Your task to perform on an android device: all mails in gmail Image 0: 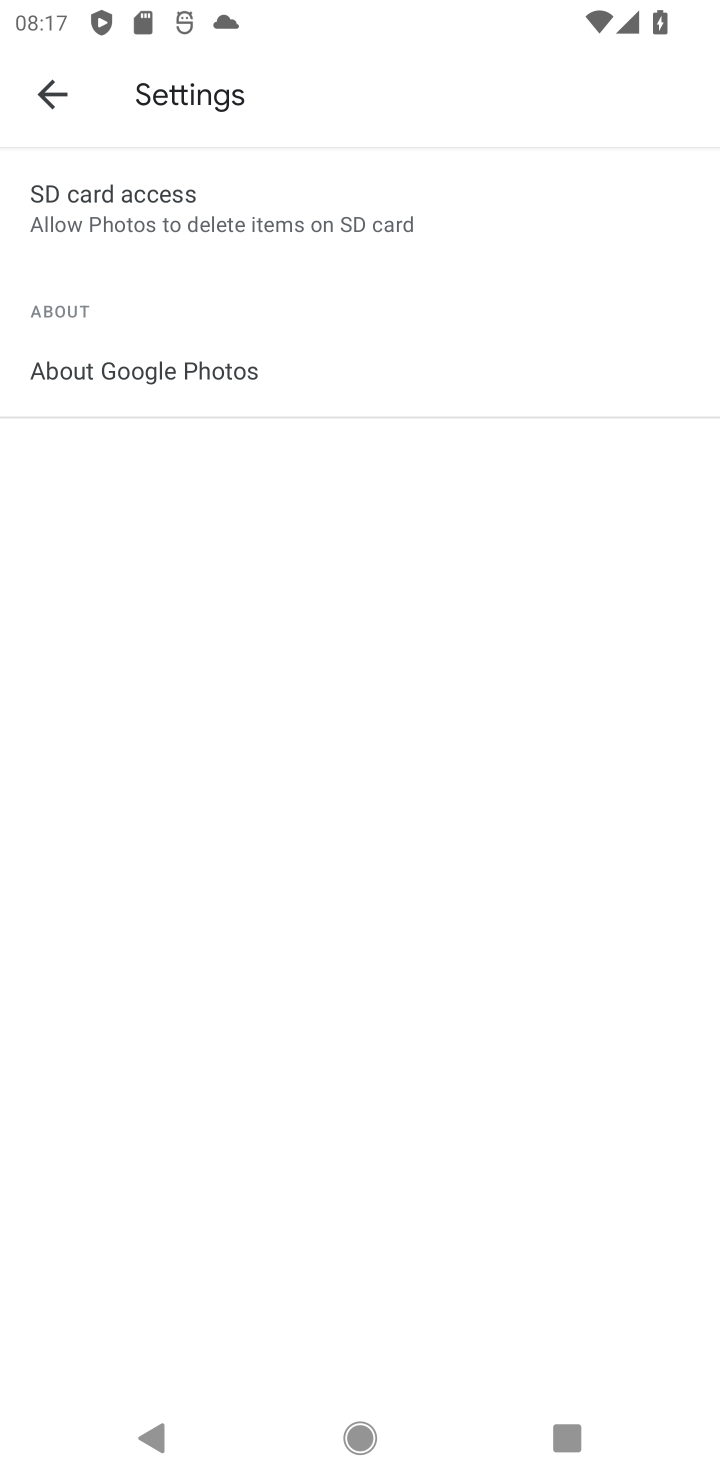
Step 0: press home button
Your task to perform on an android device: all mails in gmail Image 1: 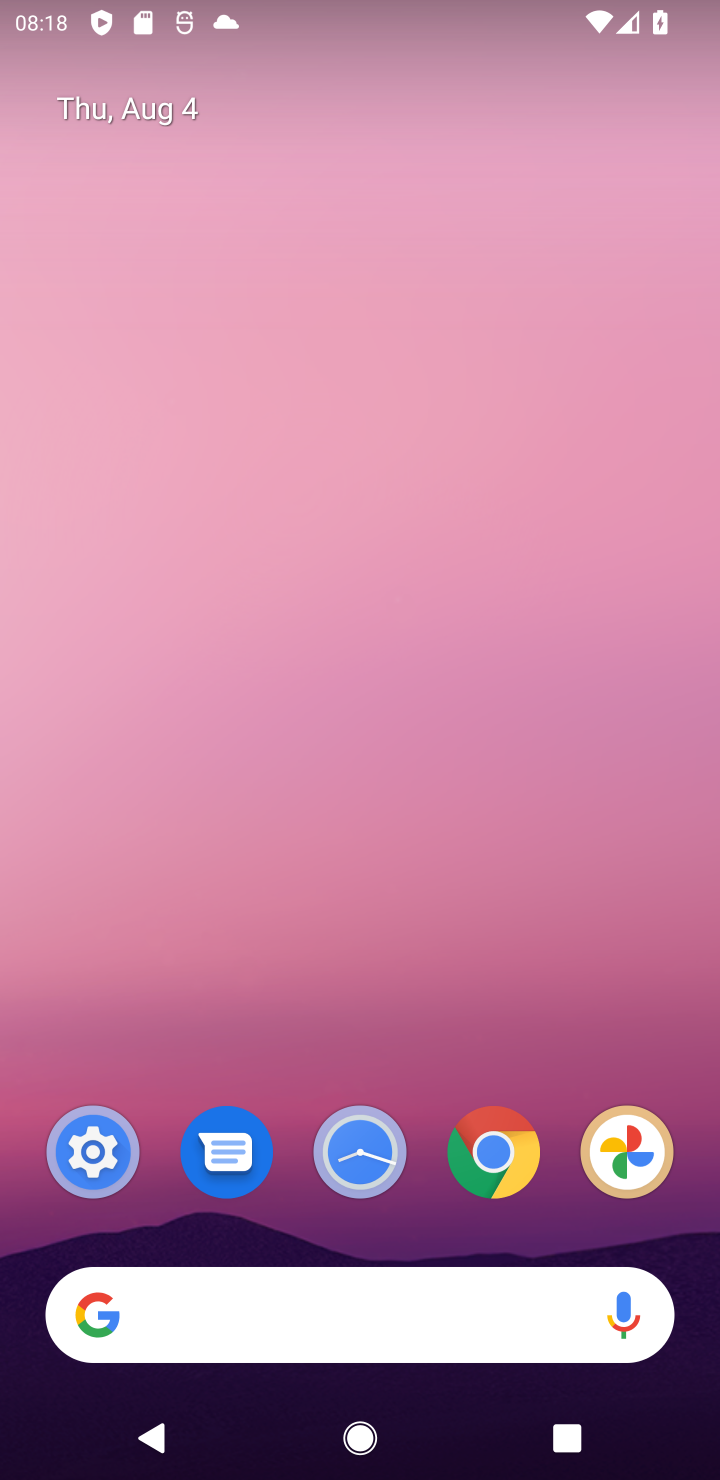
Step 1: drag from (134, 1088) to (569, 260)
Your task to perform on an android device: all mails in gmail Image 2: 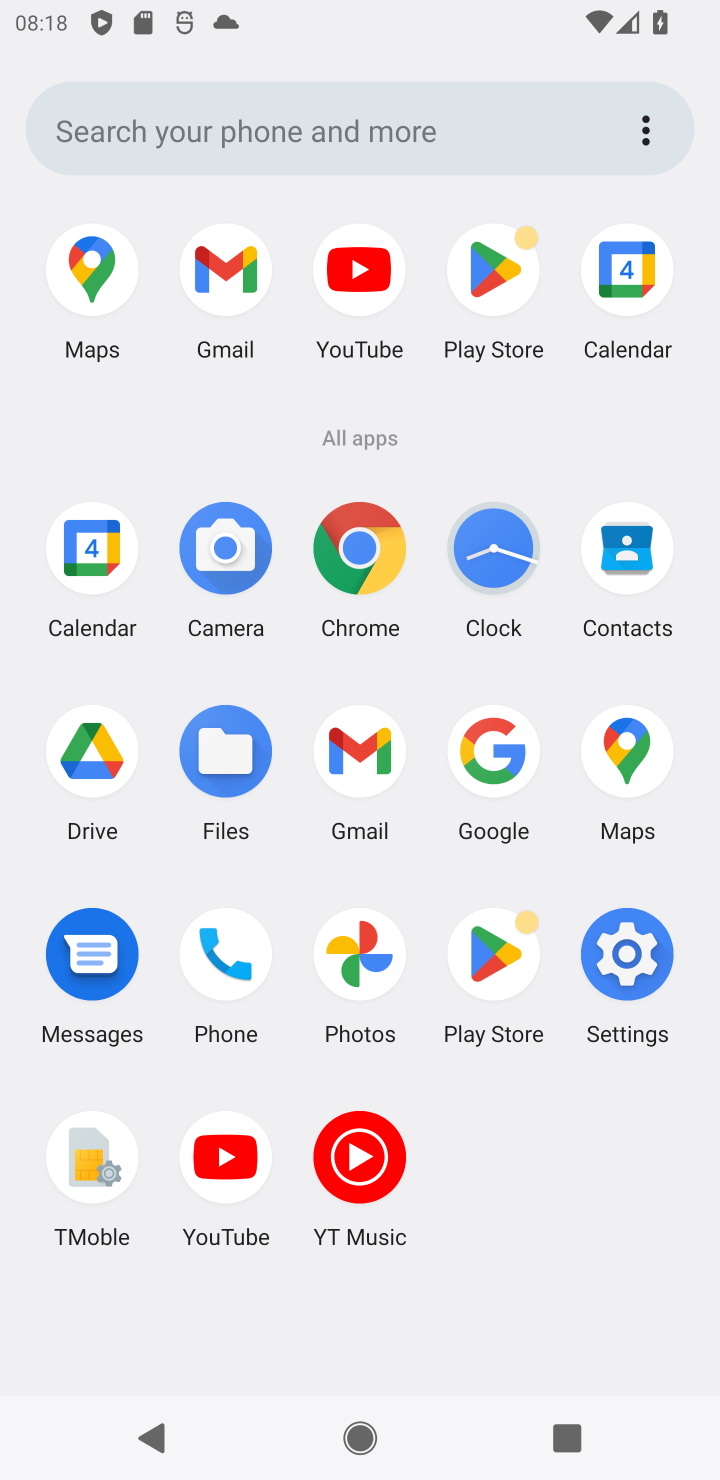
Step 2: click (360, 749)
Your task to perform on an android device: all mails in gmail Image 3: 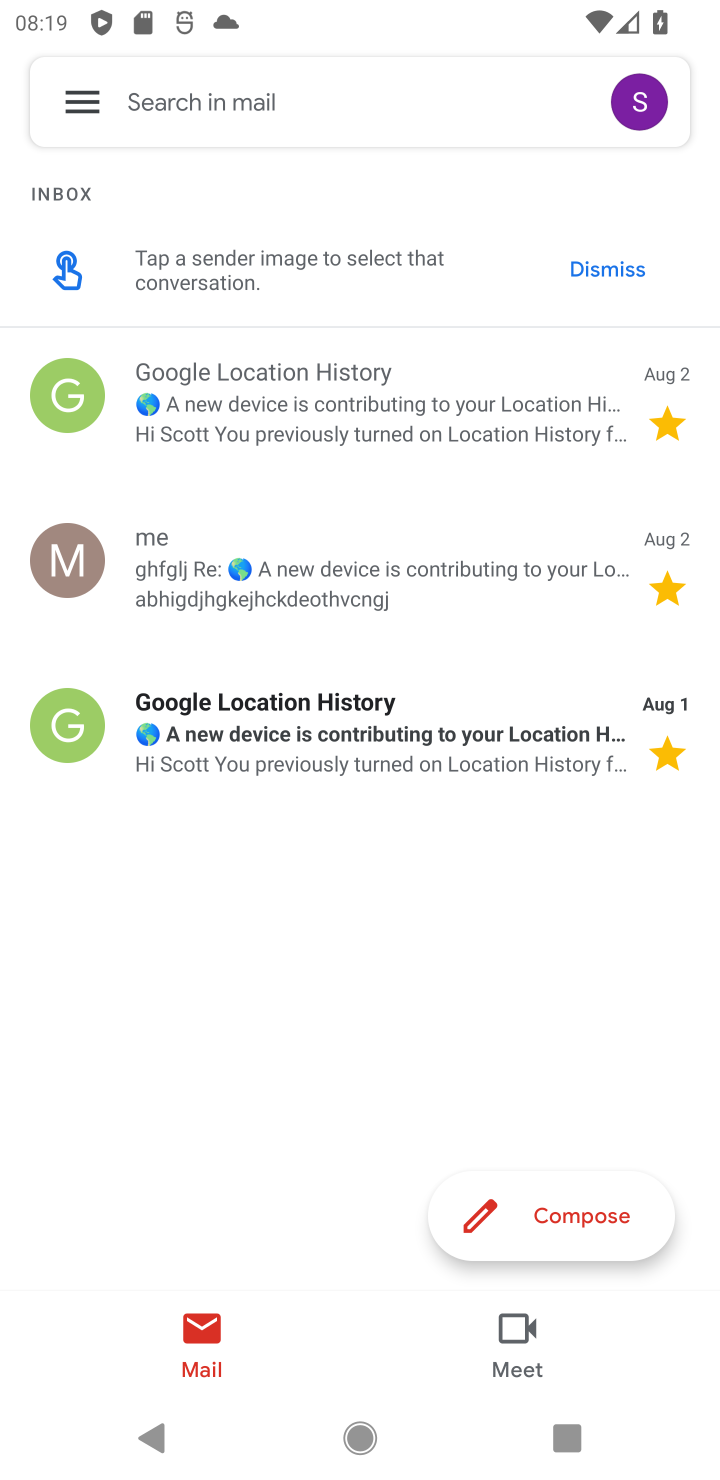
Step 3: click (90, 81)
Your task to perform on an android device: all mails in gmail Image 4: 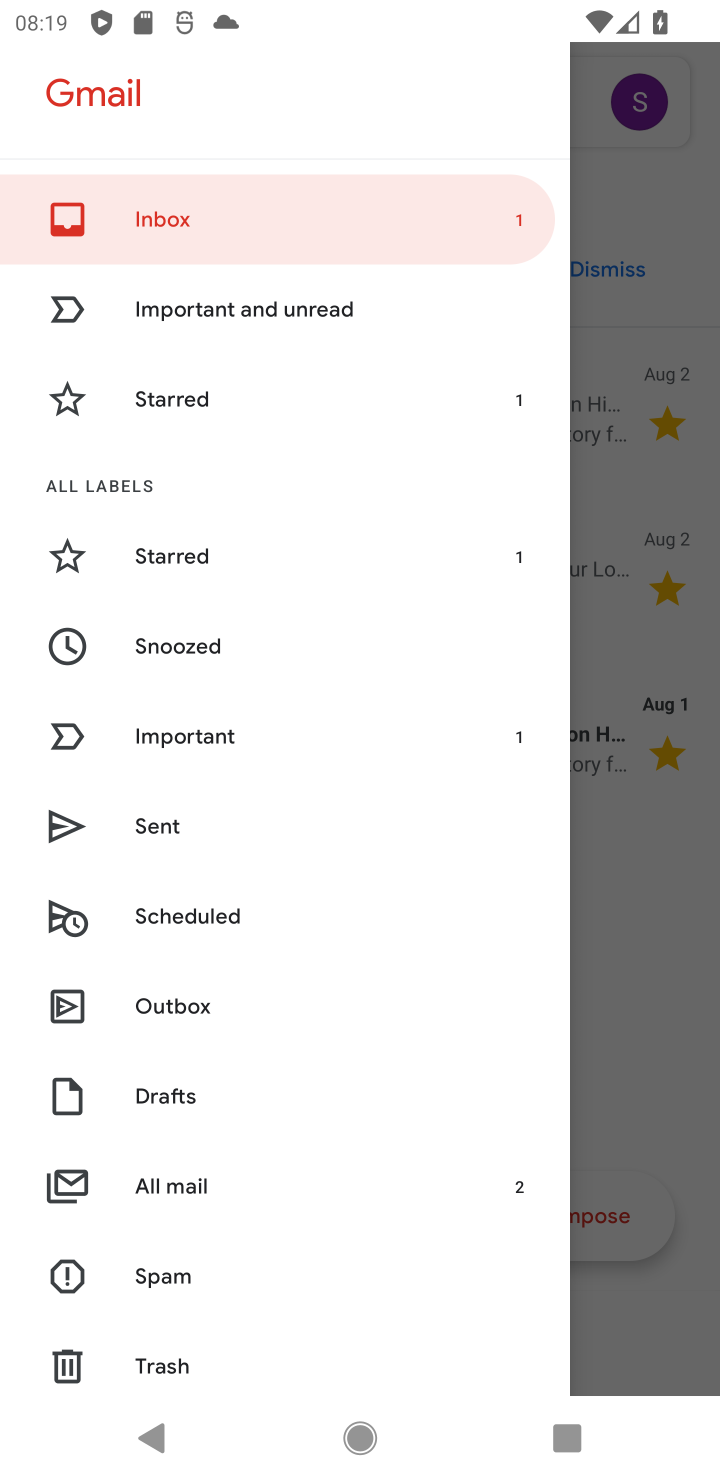
Step 4: click (185, 201)
Your task to perform on an android device: all mails in gmail Image 5: 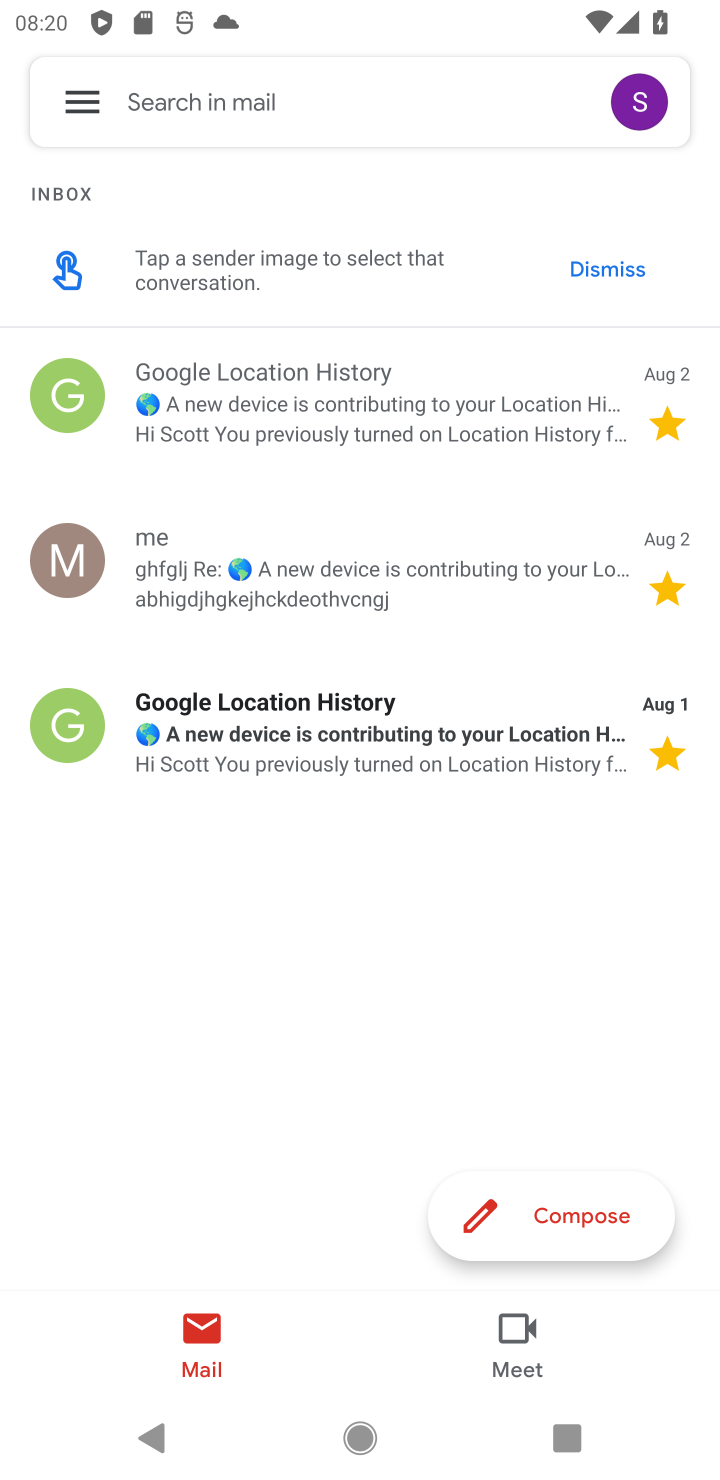
Step 5: task complete